Your task to perform on an android device: open a bookmark in the chrome app Image 0: 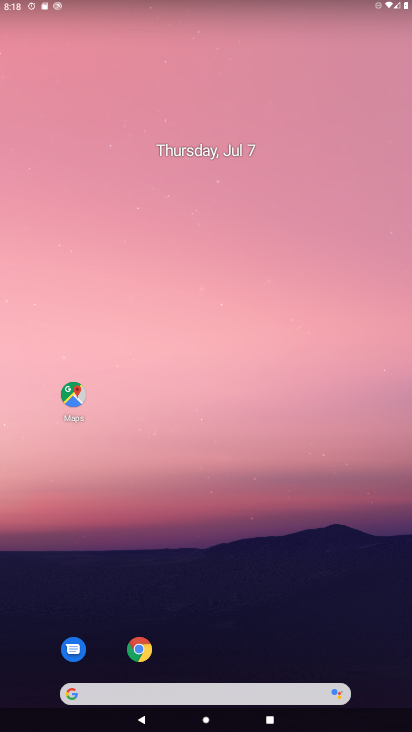
Step 0: click (141, 642)
Your task to perform on an android device: open a bookmark in the chrome app Image 1: 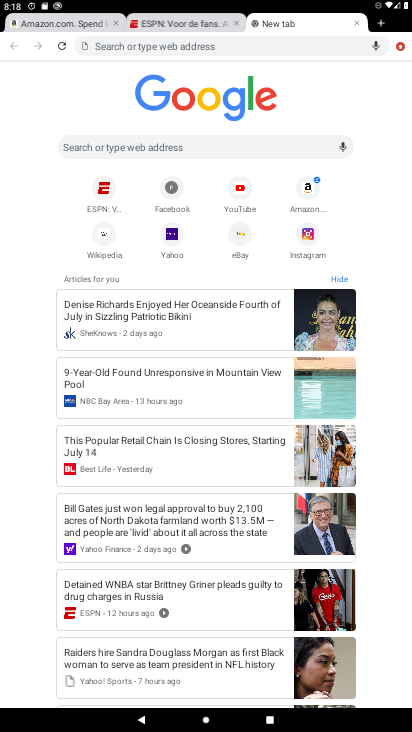
Step 1: click (402, 44)
Your task to perform on an android device: open a bookmark in the chrome app Image 2: 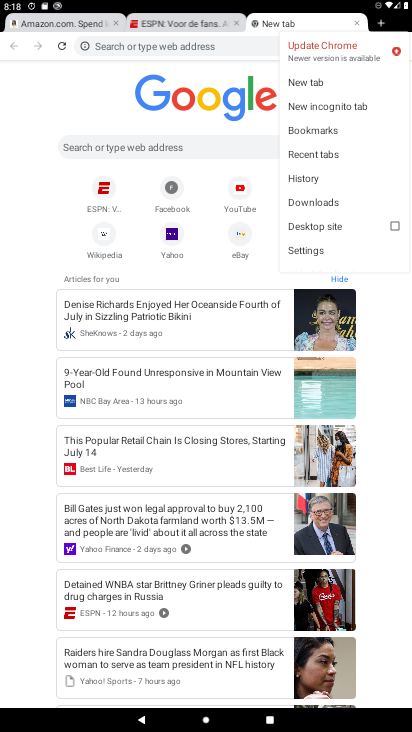
Step 2: click (324, 134)
Your task to perform on an android device: open a bookmark in the chrome app Image 3: 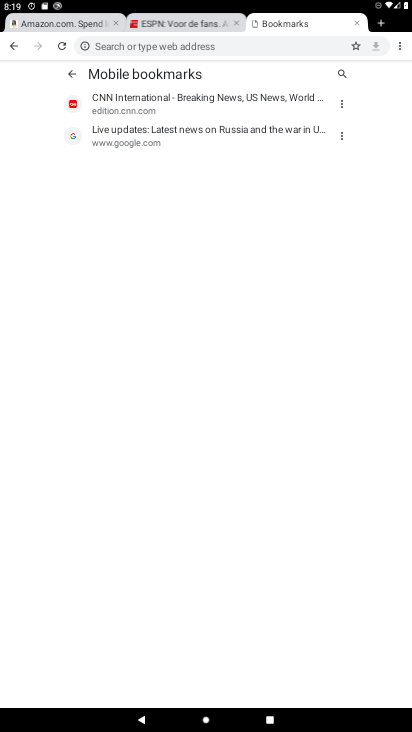
Step 3: task complete